Your task to perform on an android device: turn on translation in the chrome app Image 0: 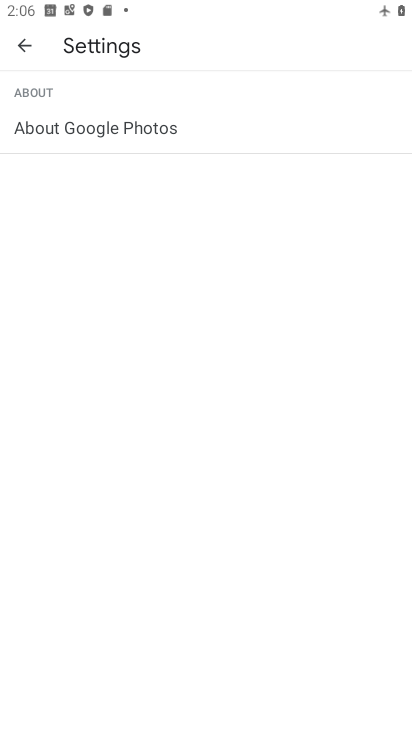
Step 0: press home button
Your task to perform on an android device: turn on translation in the chrome app Image 1: 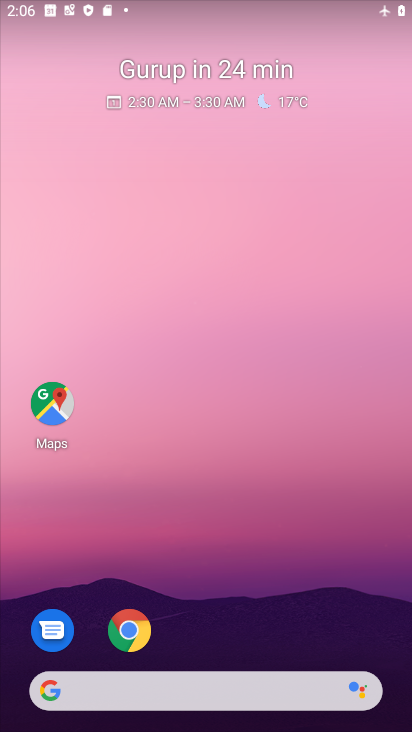
Step 1: click (132, 635)
Your task to perform on an android device: turn on translation in the chrome app Image 2: 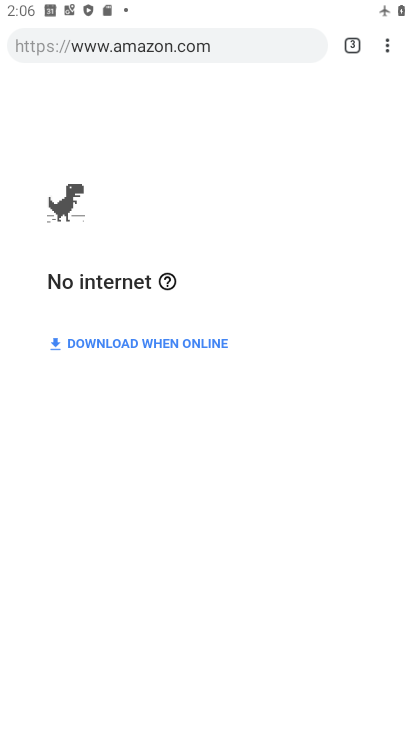
Step 2: click (389, 45)
Your task to perform on an android device: turn on translation in the chrome app Image 3: 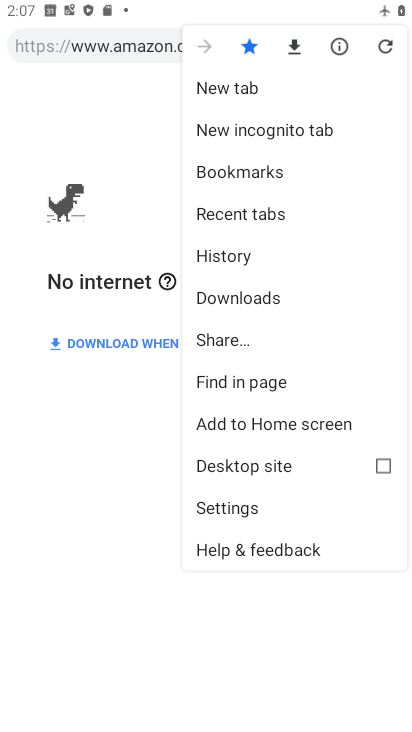
Step 3: click (244, 508)
Your task to perform on an android device: turn on translation in the chrome app Image 4: 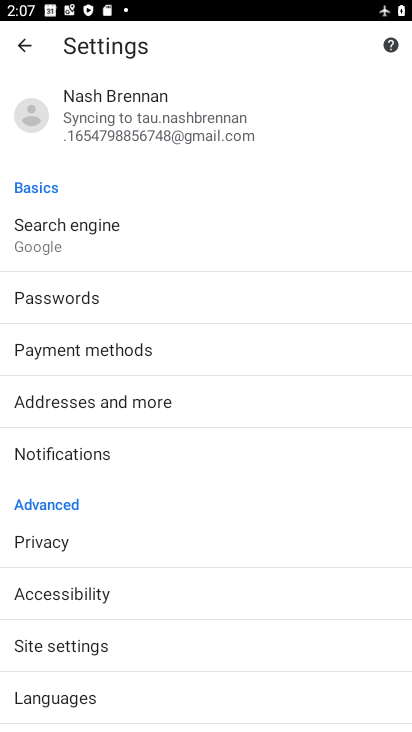
Step 4: drag from (265, 557) to (270, 292)
Your task to perform on an android device: turn on translation in the chrome app Image 5: 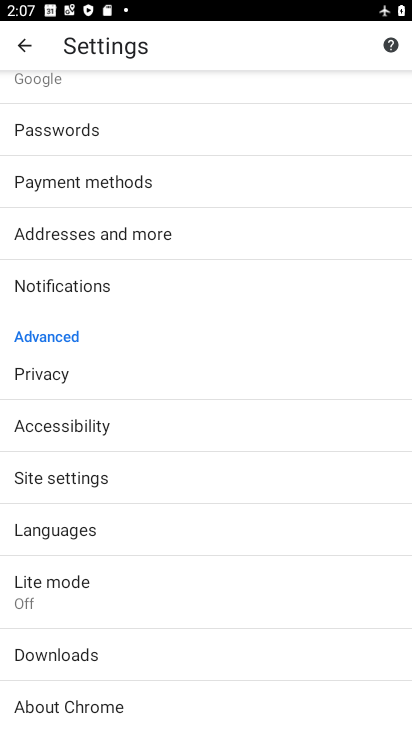
Step 5: click (164, 532)
Your task to perform on an android device: turn on translation in the chrome app Image 6: 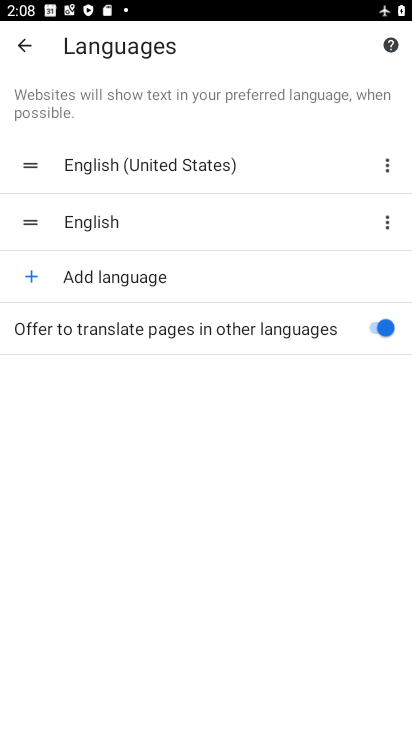
Step 6: task complete